Your task to perform on an android device: move an email to a new category in the gmail app Image 0: 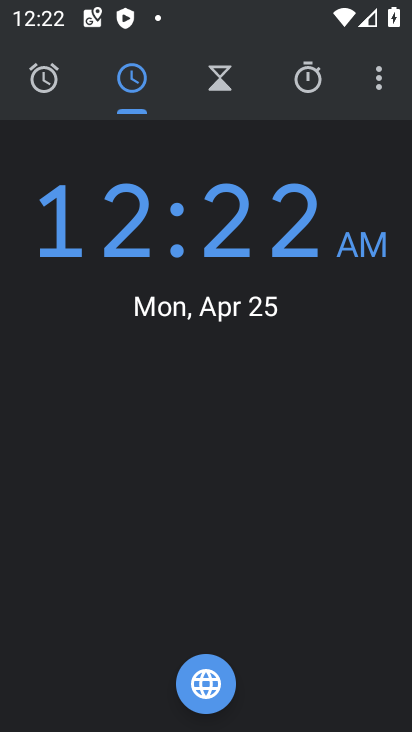
Step 0: press home button
Your task to perform on an android device: move an email to a new category in the gmail app Image 1: 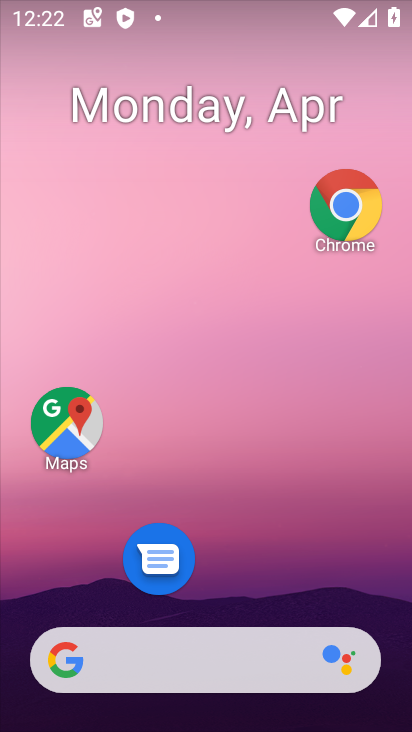
Step 1: drag from (290, 566) to (227, 133)
Your task to perform on an android device: move an email to a new category in the gmail app Image 2: 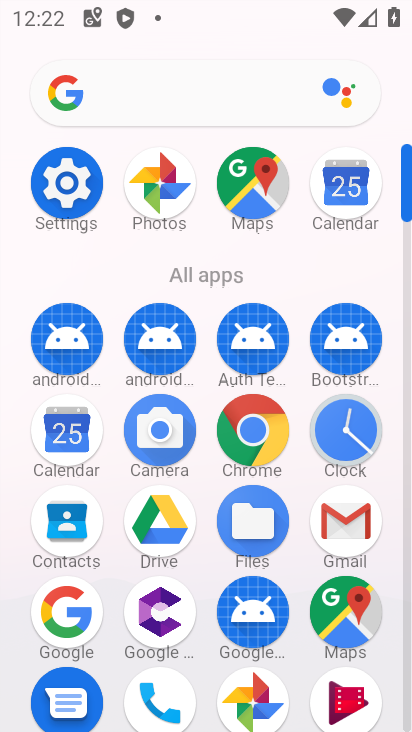
Step 2: click (360, 519)
Your task to perform on an android device: move an email to a new category in the gmail app Image 3: 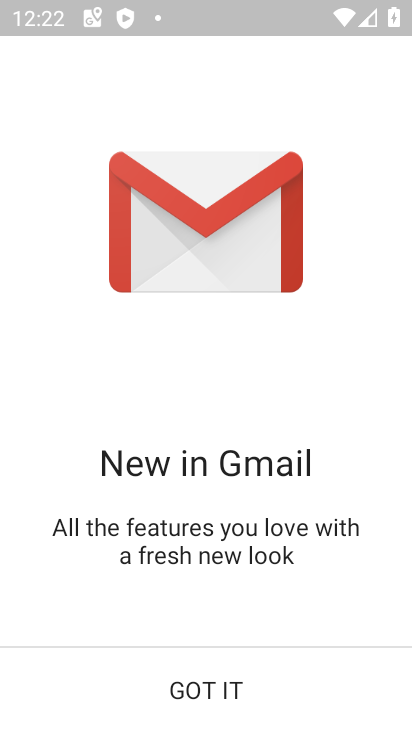
Step 3: click (232, 685)
Your task to perform on an android device: move an email to a new category in the gmail app Image 4: 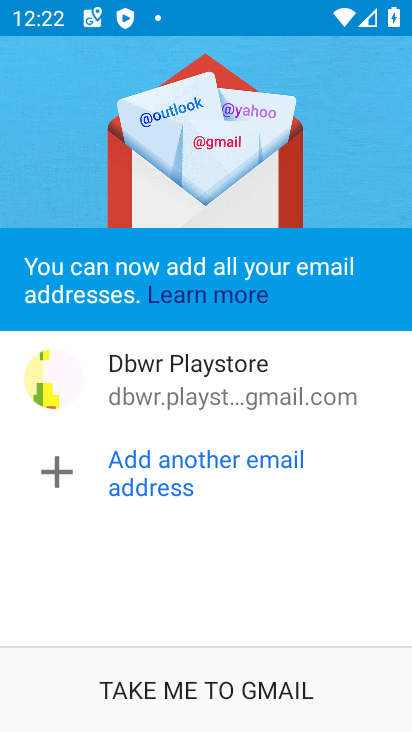
Step 4: click (219, 684)
Your task to perform on an android device: move an email to a new category in the gmail app Image 5: 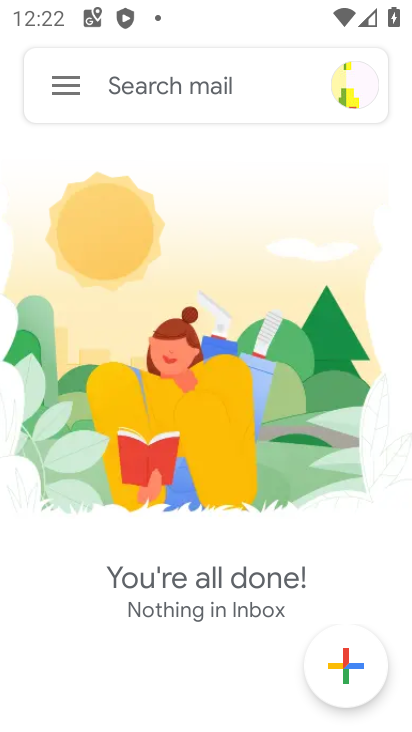
Step 5: click (79, 94)
Your task to perform on an android device: move an email to a new category in the gmail app Image 6: 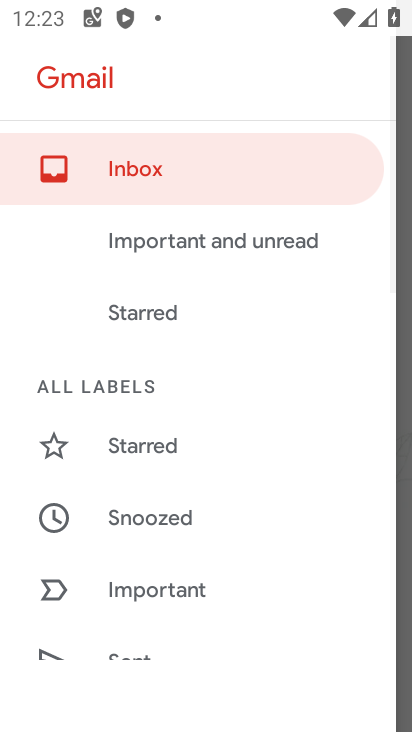
Step 6: drag from (167, 536) to (208, 177)
Your task to perform on an android device: move an email to a new category in the gmail app Image 7: 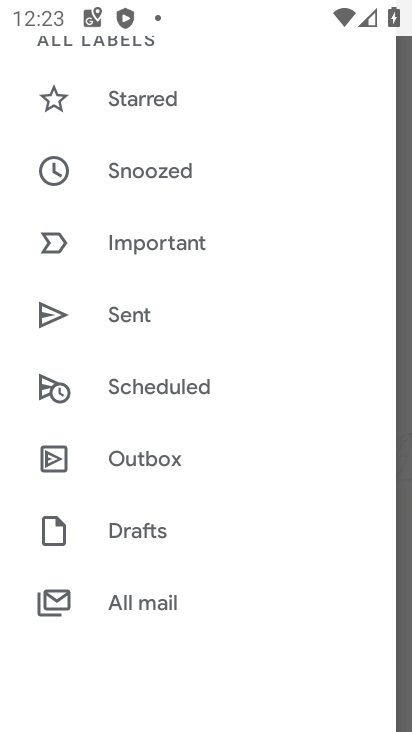
Step 7: click (170, 600)
Your task to perform on an android device: move an email to a new category in the gmail app Image 8: 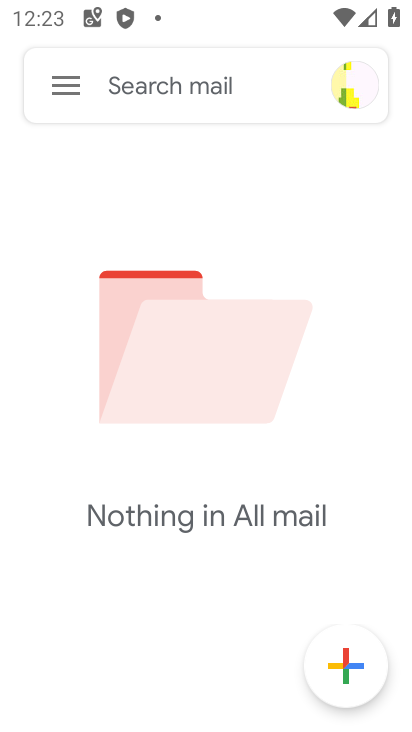
Step 8: task complete